Your task to perform on an android device: Open the stopwatch Image 0: 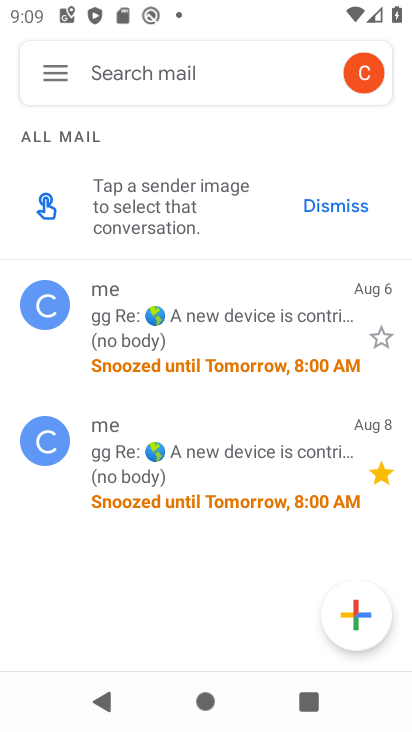
Step 0: press home button
Your task to perform on an android device: Open the stopwatch Image 1: 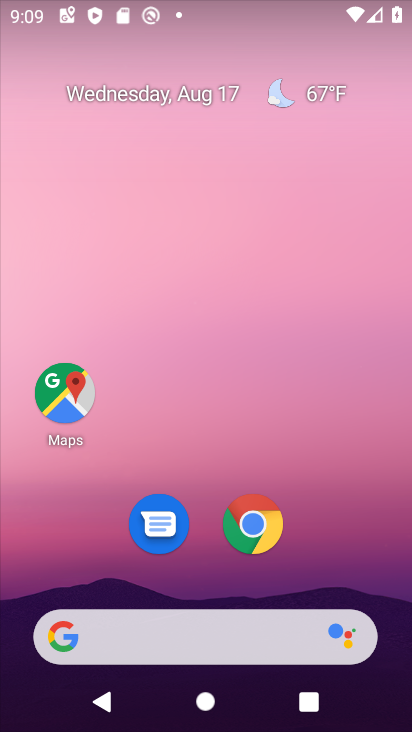
Step 1: drag from (327, 558) to (353, 49)
Your task to perform on an android device: Open the stopwatch Image 2: 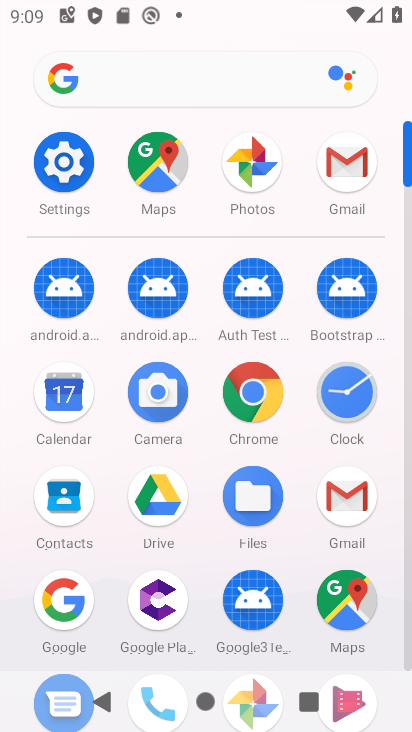
Step 2: click (347, 390)
Your task to perform on an android device: Open the stopwatch Image 3: 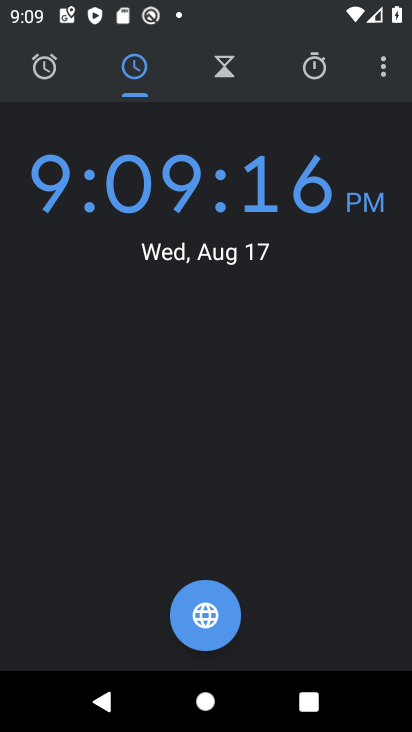
Step 3: click (313, 71)
Your task to perform on an android device: Open the stopwatch Image 4: 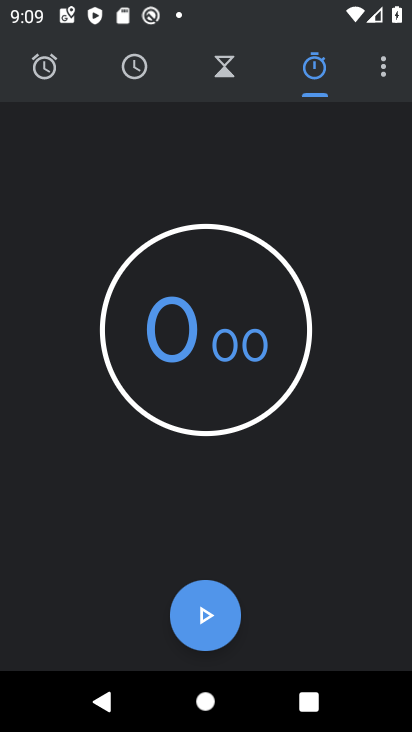
Step 4: task complete